Your task to perform on an android device: Add "logitech g pro" to the cart on newegg Image 0: 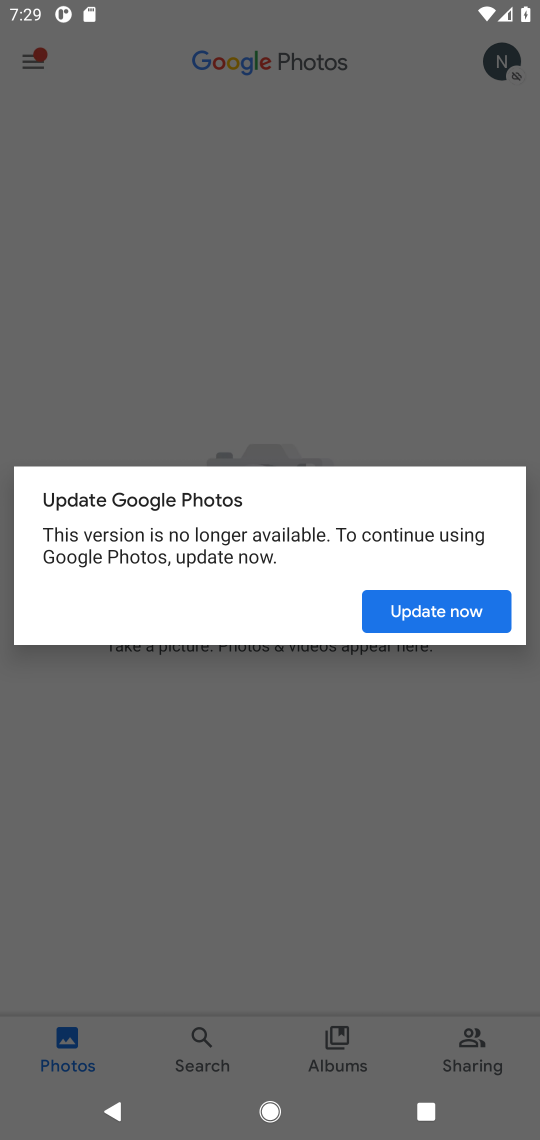
Step 0: press home button
Your task to perform on an android device: Add "logitech g pro" to the cart on newegg Image 1: 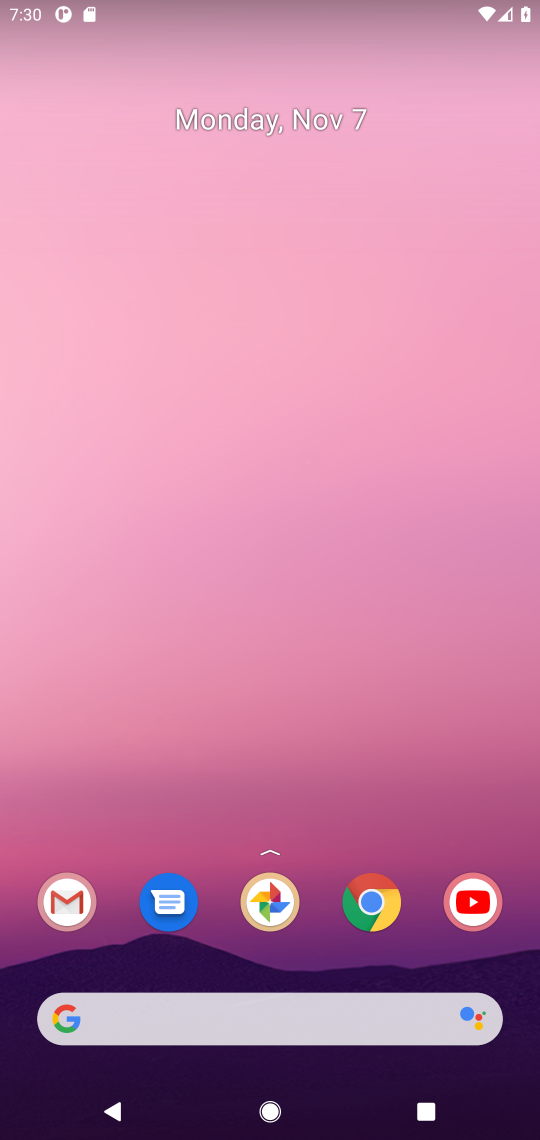
Step 1: click (361, 912)
Your task to perform on an android device: Add "logitech g pro" to the cart on newegg Image 2: 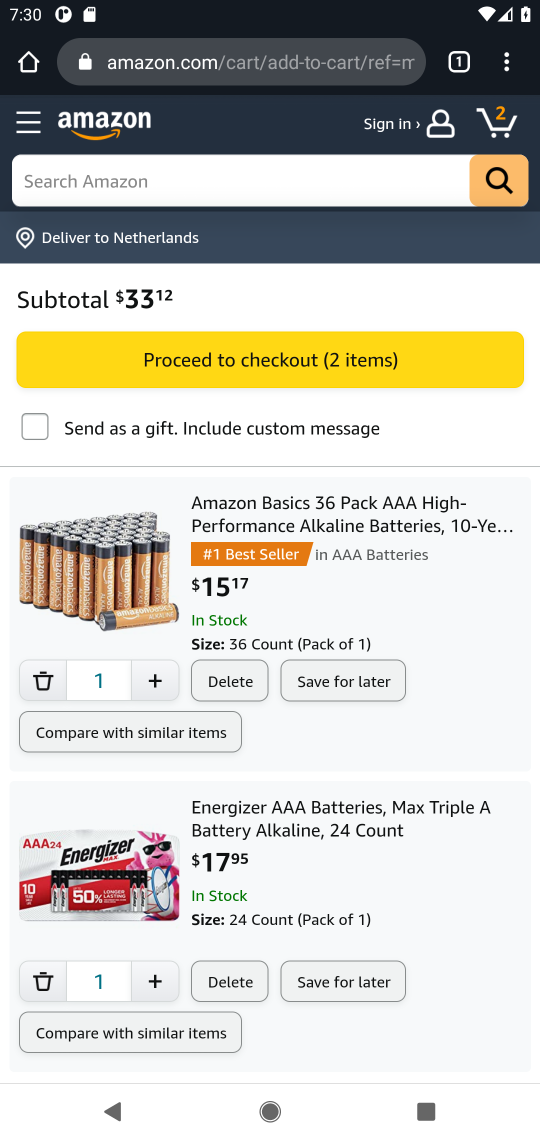
Step 2: click (231, 61)
Your task to perform on an android device: Add "logitech g pro" to the cart on newegg Image 3: 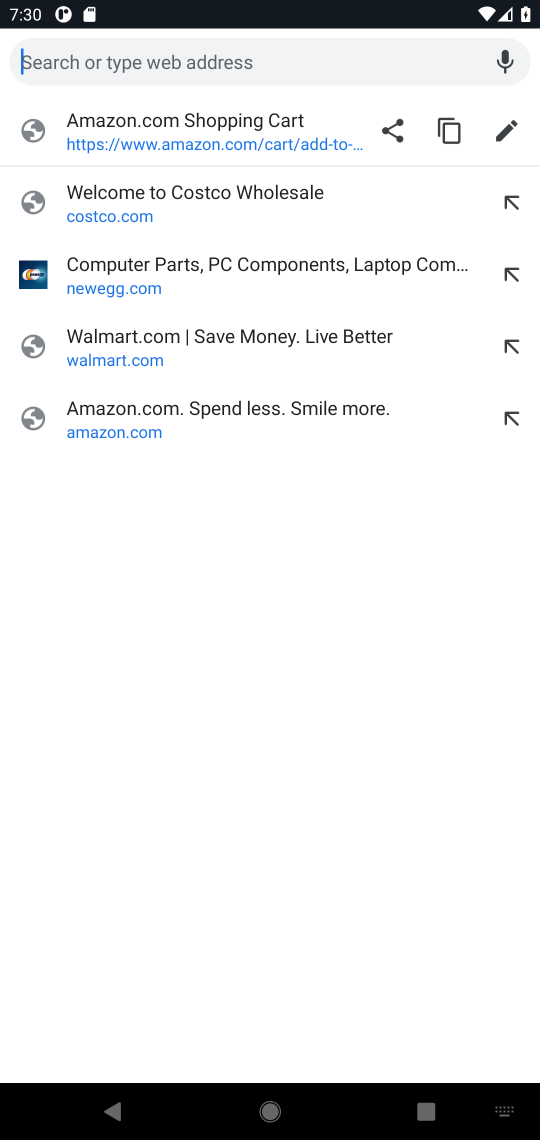
Step 3: click (128, 288)
Your task to perform on an android device: Add "logitech g pro" to the cart on newegg Image 4: 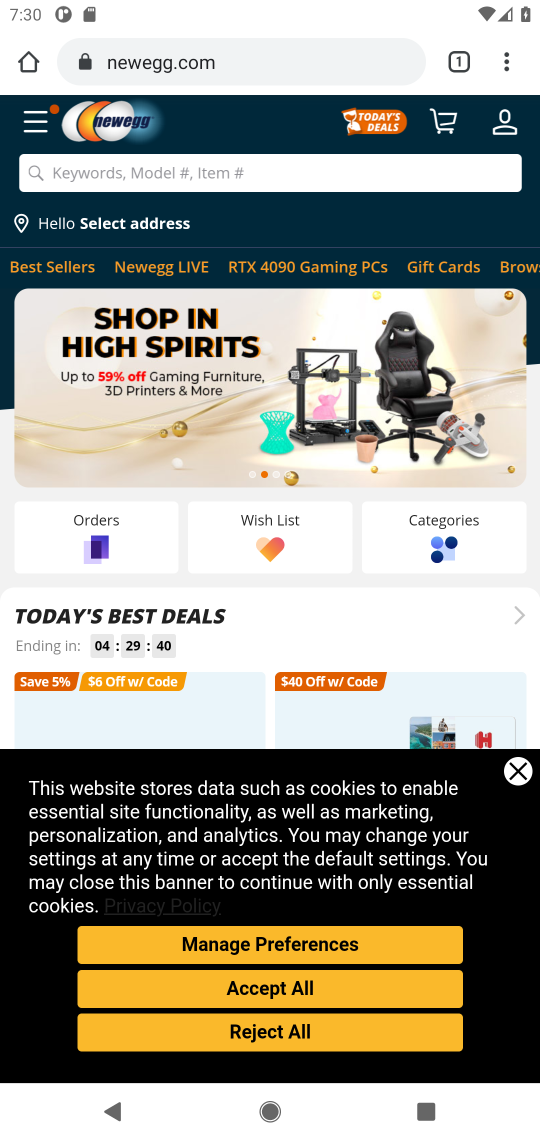
Step 4: click (252, 181)
Your task to perform on an android device: Add "logitech g pro" to the cart on newegg Image 5: 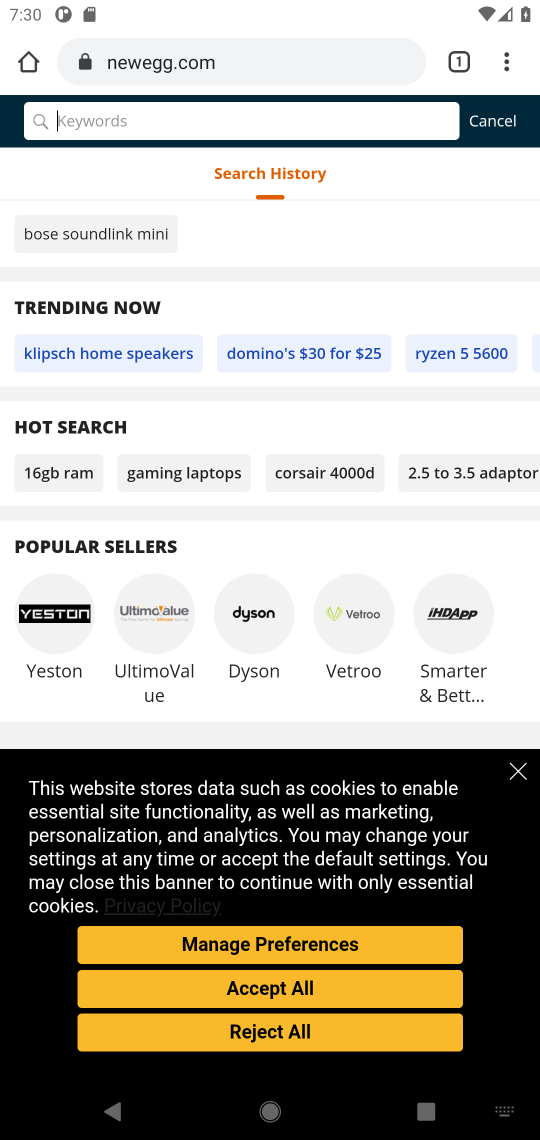
Step 5: type "logitech g pro"
Your task to perform on an android device: Add "logitech g pro" to the cart on newegg Image 6: 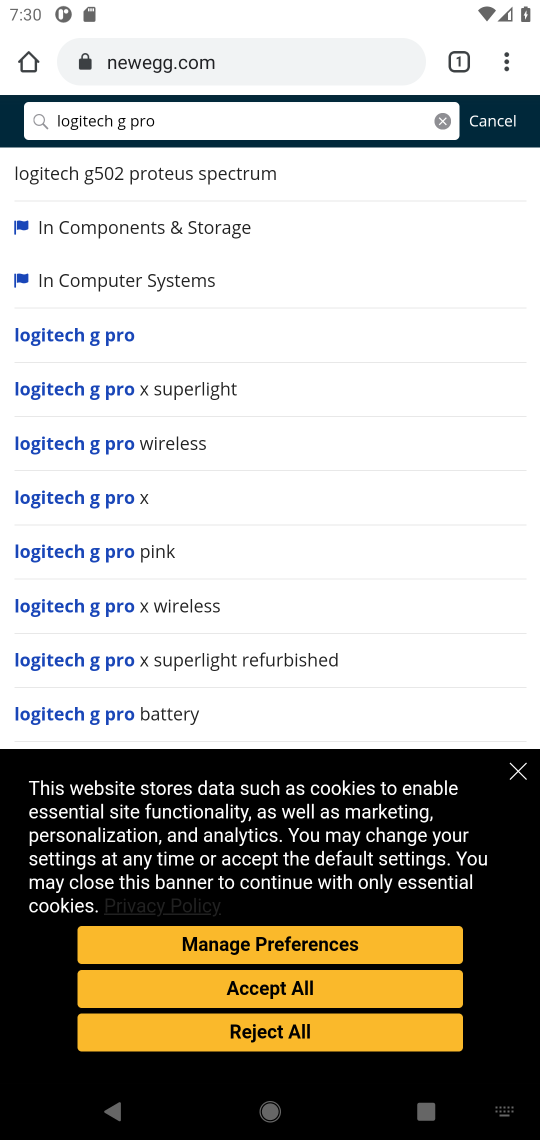
Step 6: click (110, 343)
Your task to perform on an android device: Add "logitech g pro" to the cart on newegg Image 7: 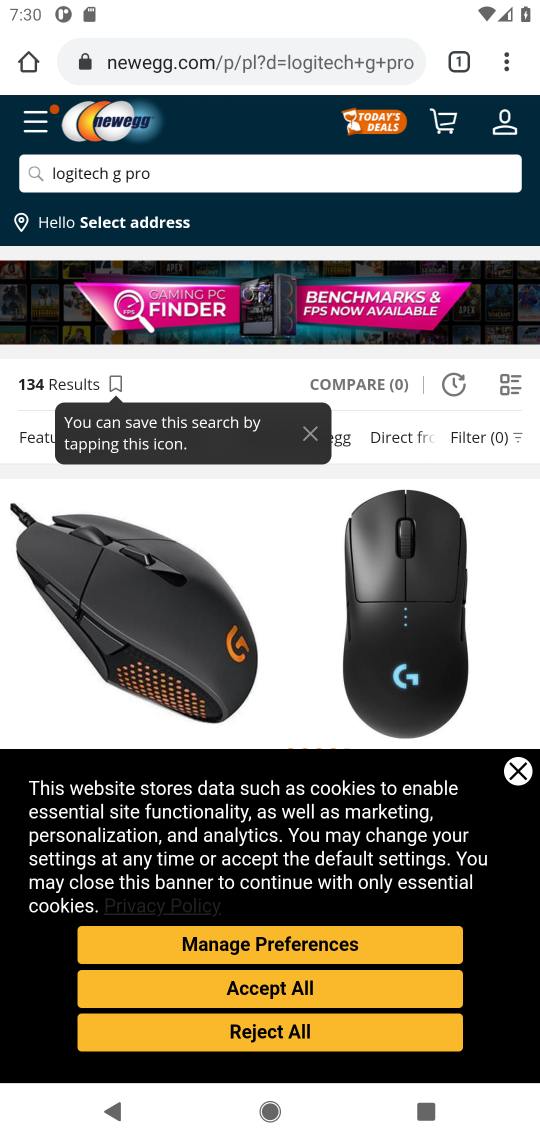
Step 7: click (518, 773)
Your task to perform on an android device: Add "logitech g pro" to the cart on newegg Image 8: 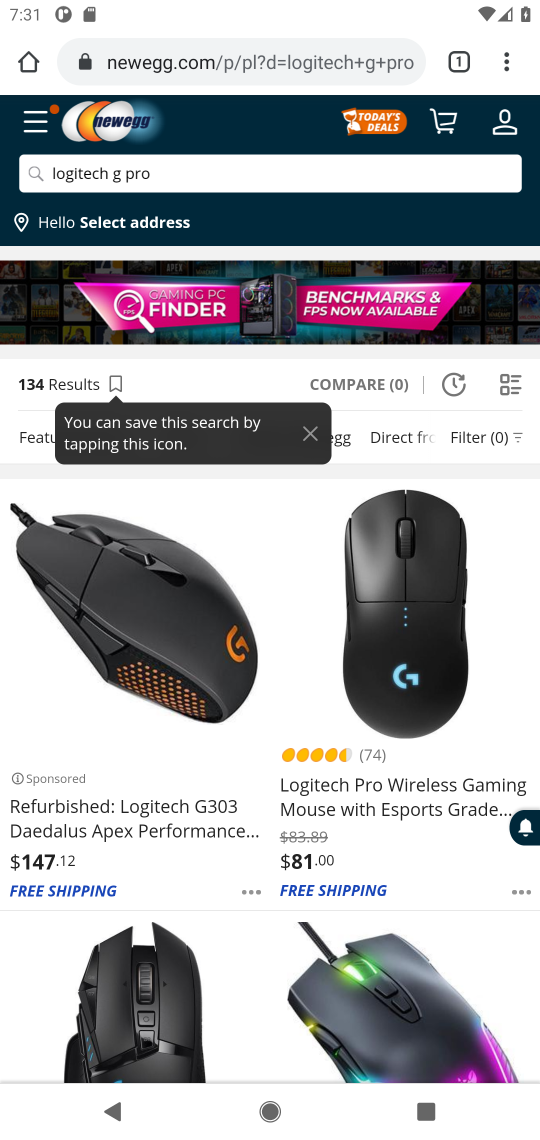
Step 8: drag from (372, 855) to (370, 529)
Your task to perform on an android device: Add "logitech g pro" to the cart on newegg Image 9: 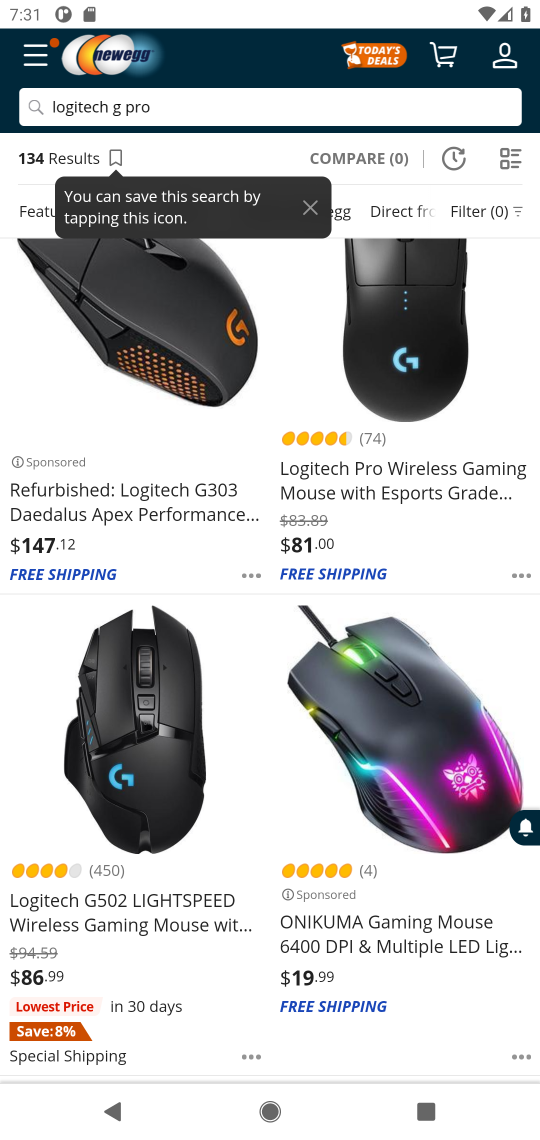
Step 9: drag from (305, 930) to (320, 465)
Your task to perform on an android device: Add "logitech g pro" to the cart on newegg Image 10: 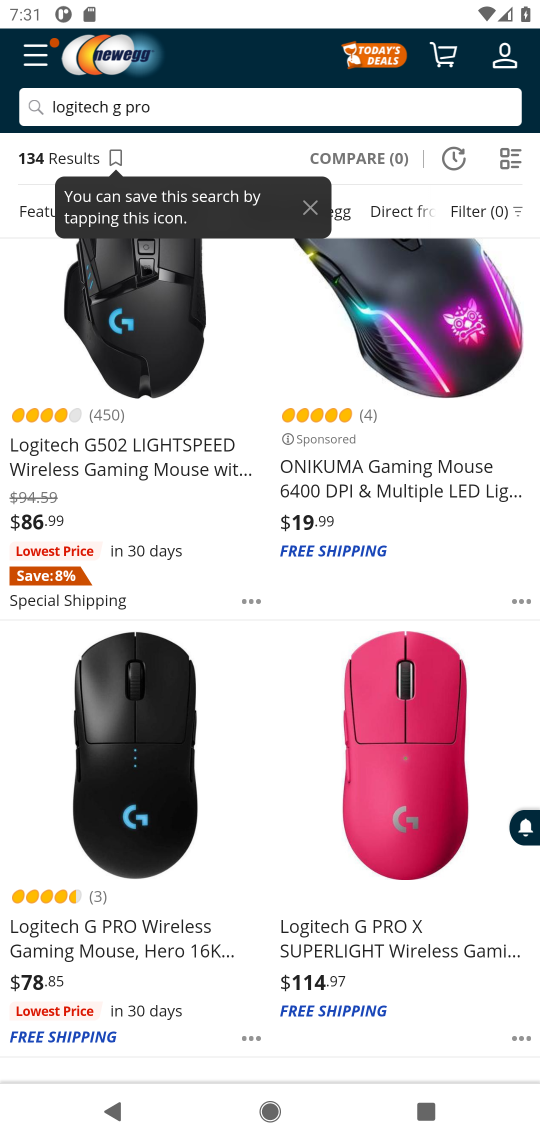
Step 10: click (124, 765)
Your task to perform on an android device: Add "logitech g pro" to the cart on newegg Image 11: 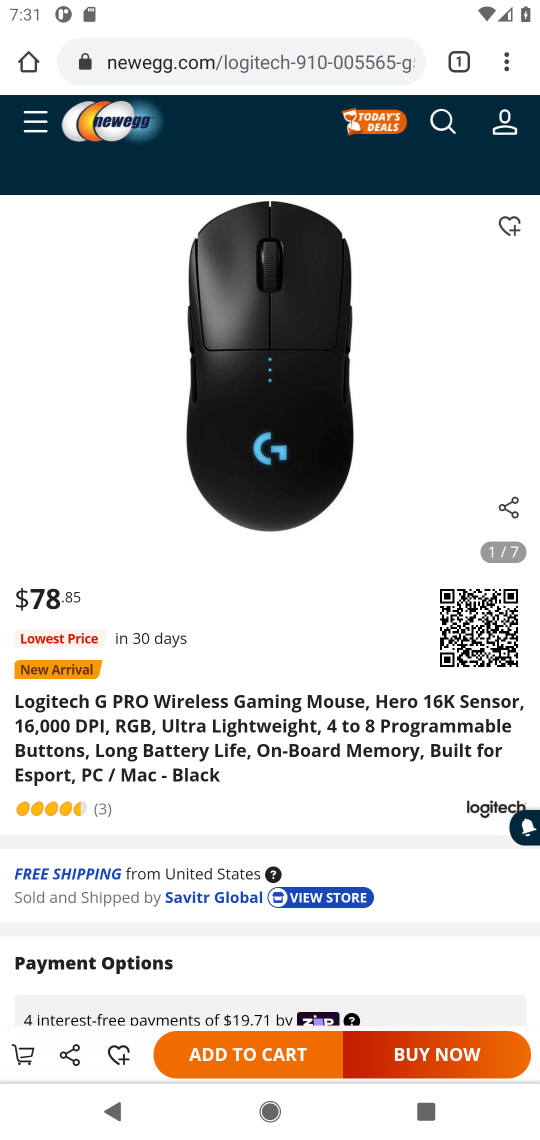
Step 11: click (225, 1045)
Your task to perform on an android device: Add "logitech g pro" to the cart on newegg Image 12: 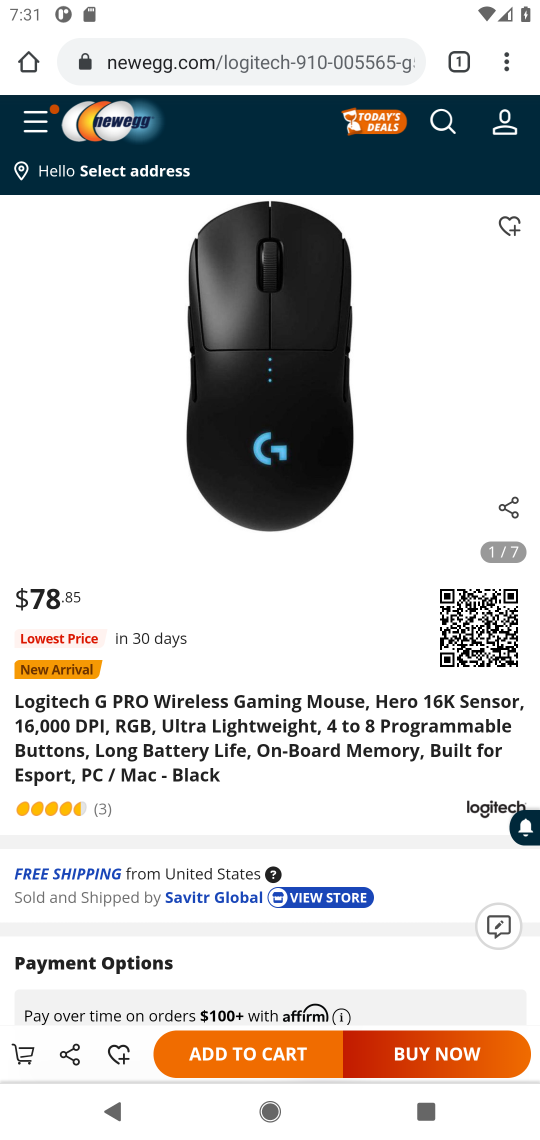
Step 12: click (231, 1061)
Your task to perform on an android device: Add "logitech g pro" to the cart on newegg Image 13: 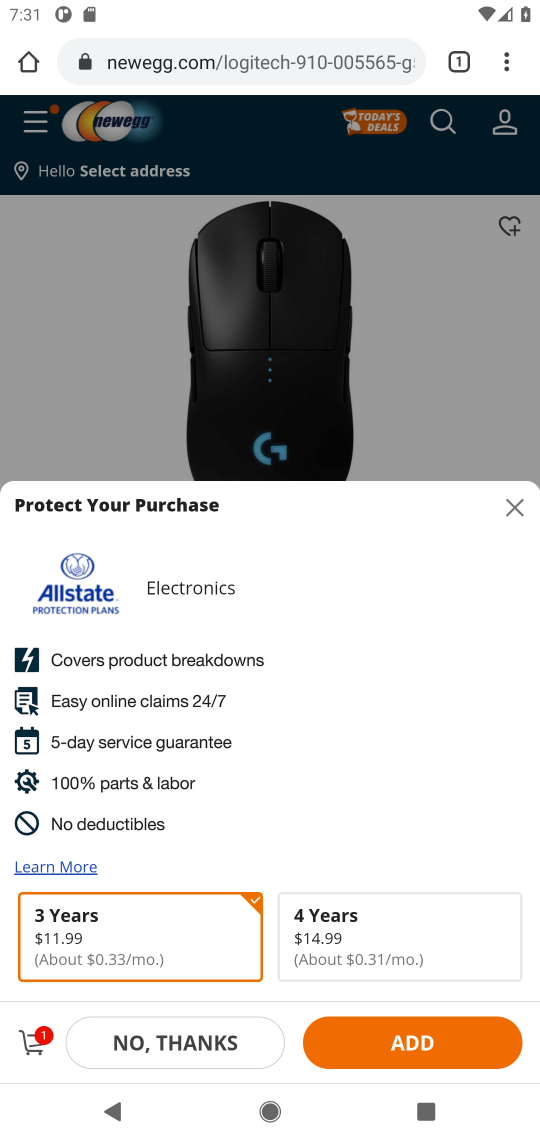
Step 13: task complete